Your task to perform on an android device: What is the recent news? Image 0: 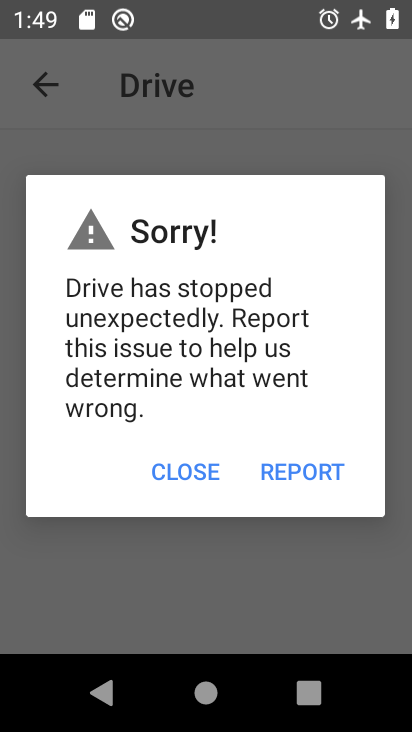
Step 0: press home button
Your task to perform on an android device: What is the recent news? Image 1: 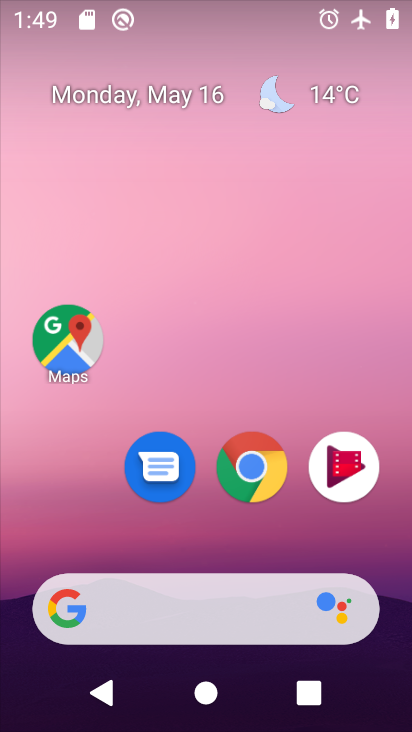
Step 1: drag from (224, 562) to (266, 235)
Your task to perform on an android device: What is the recent news? Image 2: 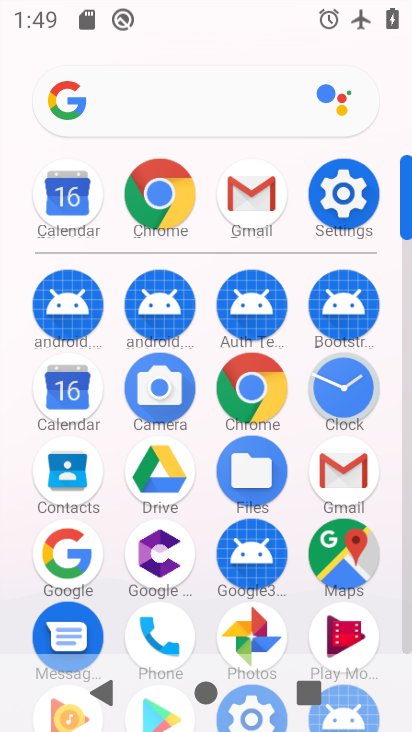
Step 2: click (166, 179)
Your task to perform on an android device: What is the recent news? Image 3: 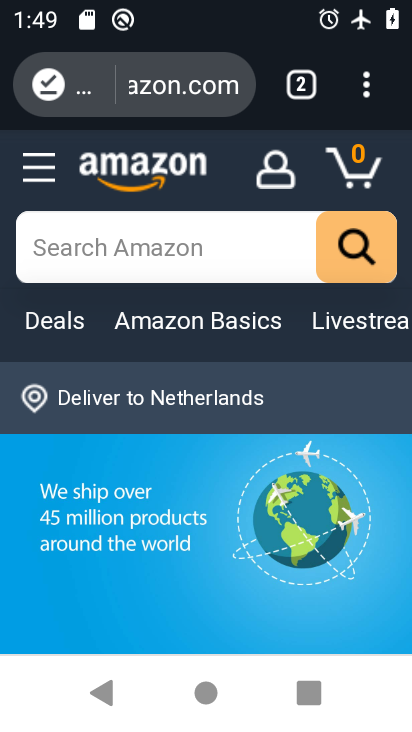
Step 3: click (353, 82)
Your task to perform on an android device: What is the recent news? Image 4: 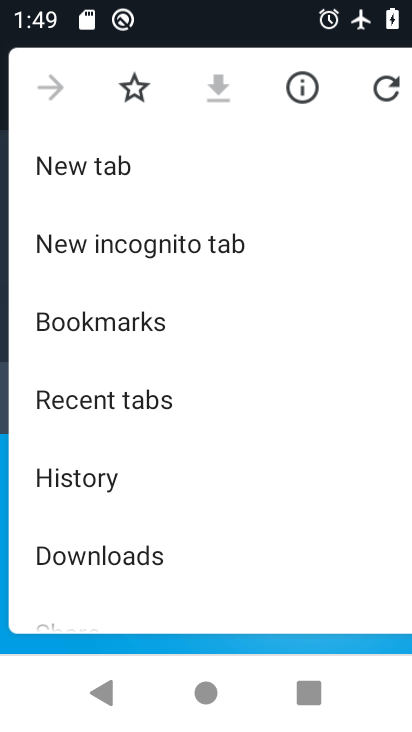
Step 4: click (123, 161)
Your task to perform on an android device: What is the recent news? Image 5: 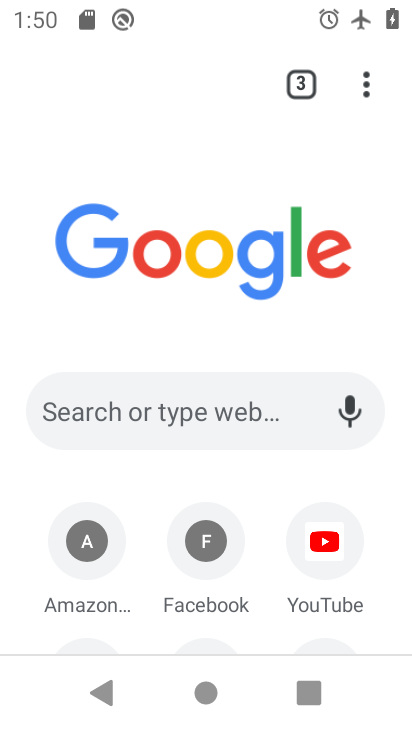
Step 5: click (211, 401)
Your task to perform on an android device: What is the recent news? Image 6: 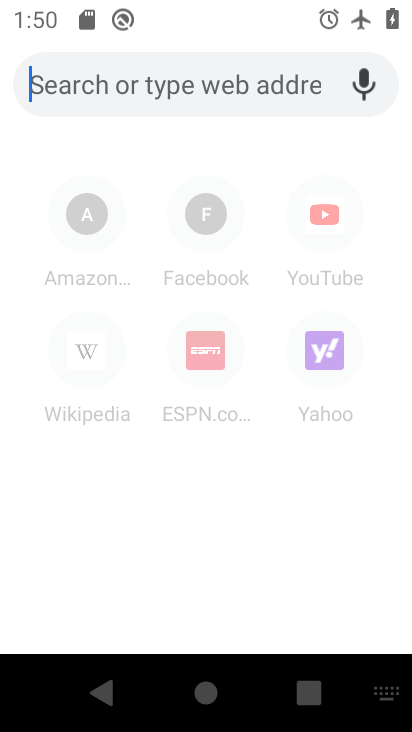
Step 6: type "What is the recent news?"
Your task to perform on an android device: What is the recent news? Image 7: 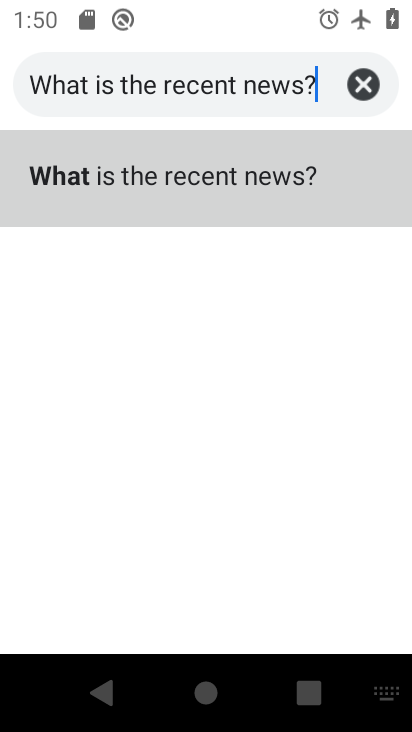
Step 7: click (301, 180)
Your task to perform on an android device: What is the recent news? Image 8: 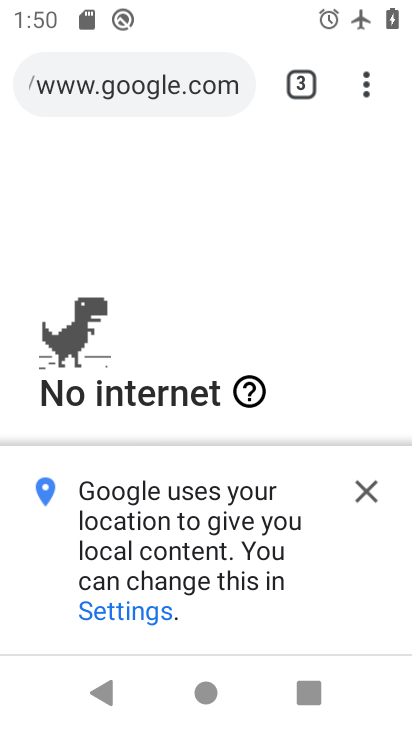
Step 8: task complete